Your task to perform on an android device: add a contact in the contacts app Image 0: 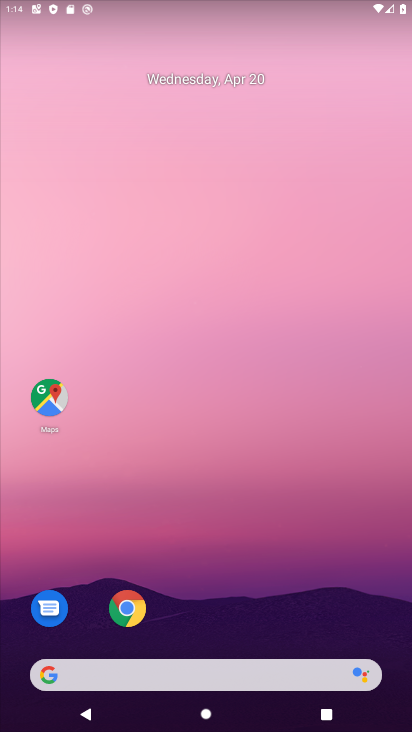
Step 0: drag from (211, 726) to (182, 52)
Your task to perform on an android device: add a contact in the contacts app Image 1: 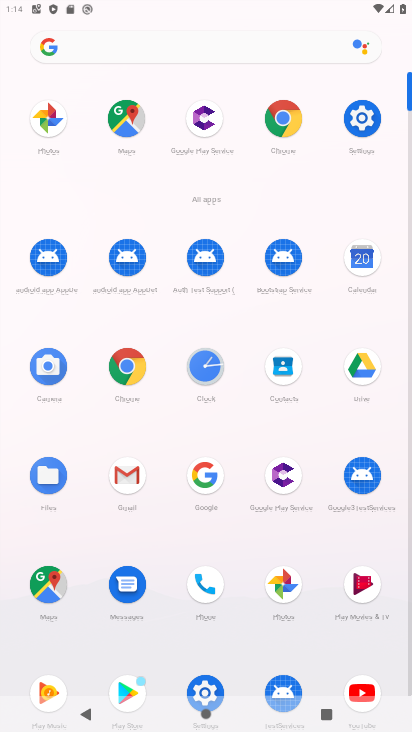
Step 1: click (285, 361)
Your task to perform on an android device: add a contact in the contacts app Image 2: 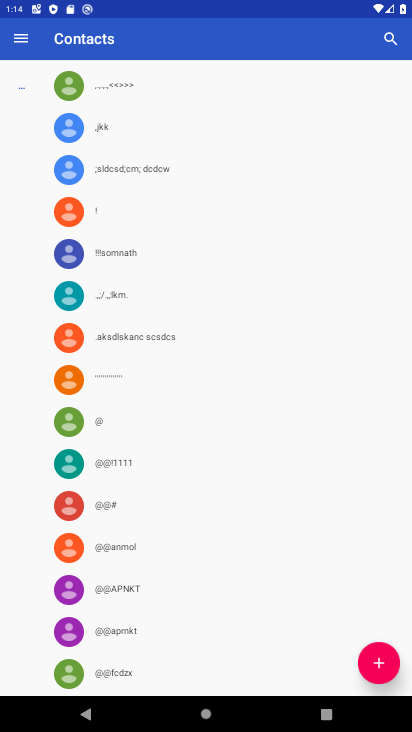
Step 2: click (381, 663)
Your task to perform on an android device: add a contact in the contacts app Image 3: 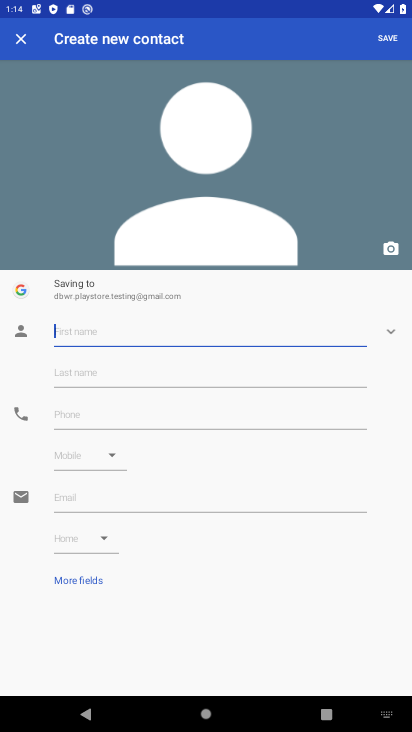
Step 3: click (156, 334)
Your task to perform on an android device: add a contact in the contacts app Image 4: 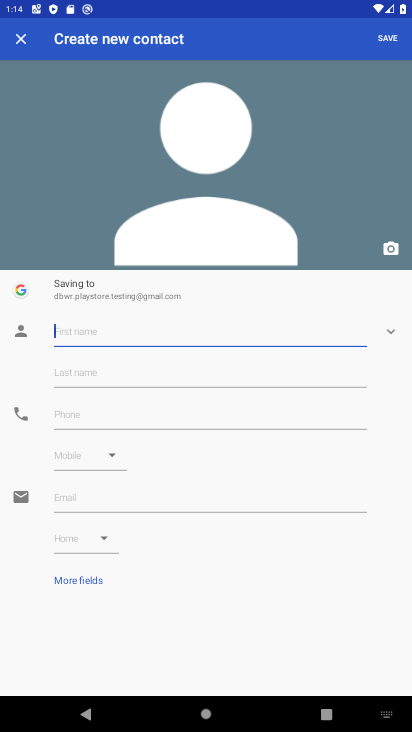
Step 4: type "lord"
Your task to perform on an android device: add a contact in the contacts app Image 5: 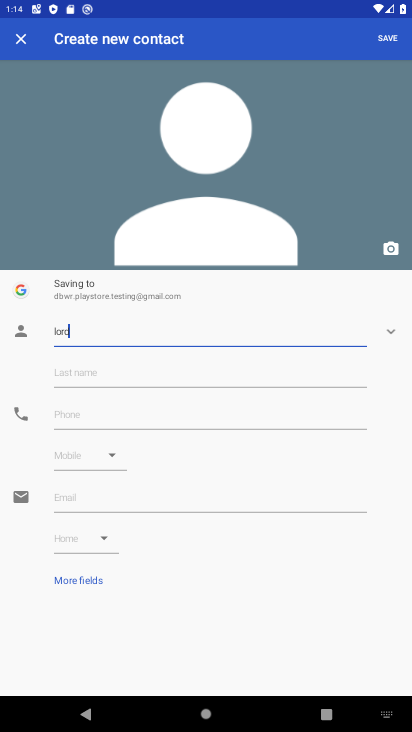
Step 5: click (108, 411)
Your task to perform on an android device: add a contact in the contacts app Image 6: 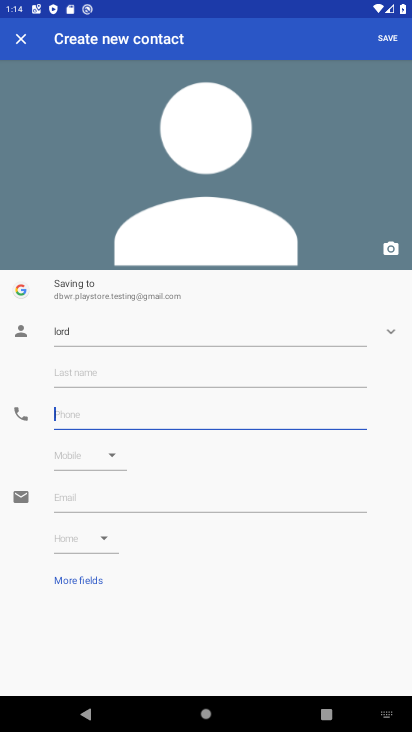
Step 6: type "55555"
Your task to perform on an android device: add a contact in the contacts app Image 7: 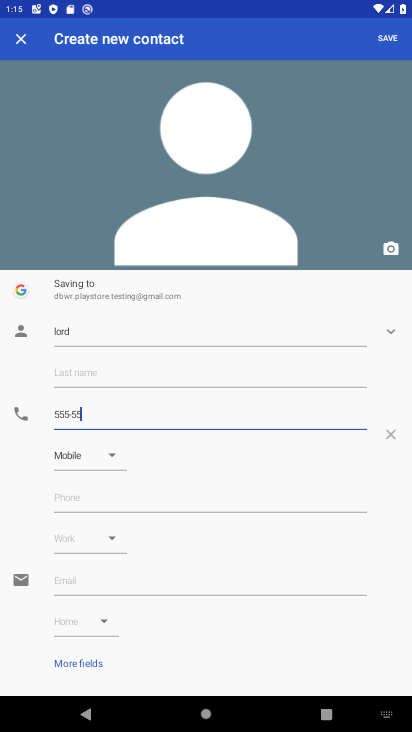
Step 7: click (390, 38)
Your task to perform on an android device: add a contact in the contacts app Image 8: 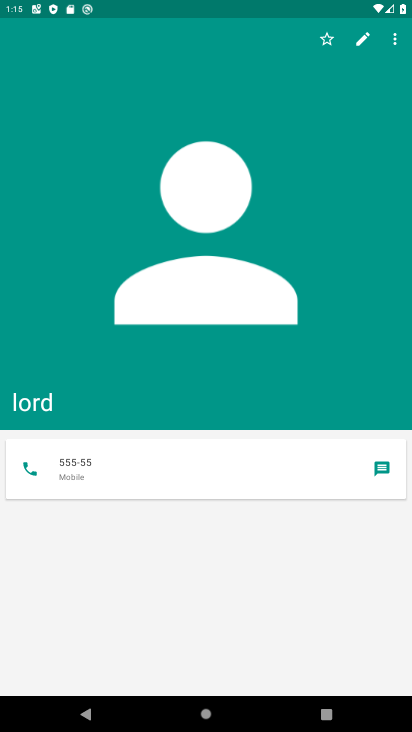
Step 8: task complete